Your task to perform on an android device: toggle show notifications on the lock screen Image 0: 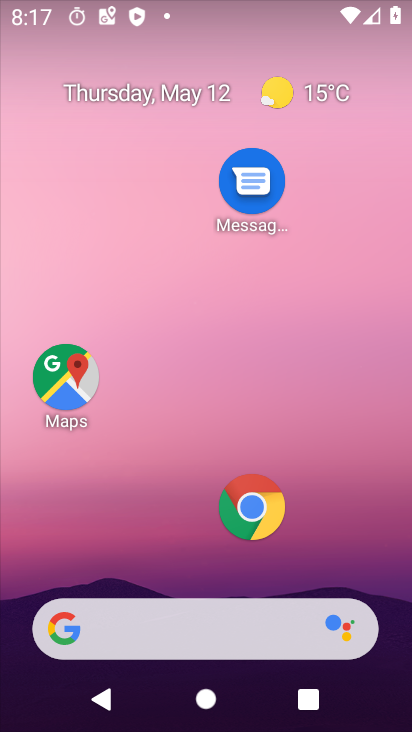
Step 0: drag from (327, 566) to (311, 162)
Your task to perform on an android device: toggle show notifications on the lock screen Image 1: 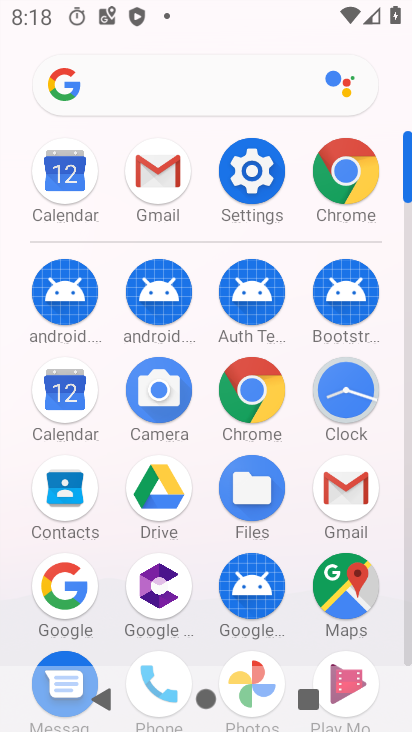
Step 1: click (248, 178)
Your task to perform on an android device: toggle show notifications on the lock screen Image 2: 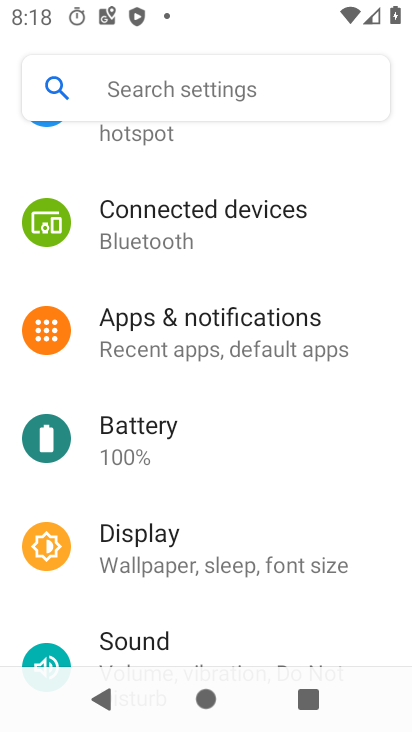
Step 2: click (211, 339)
Your task to perform on an android device: toggle show notifications on the lock screen Image 3: 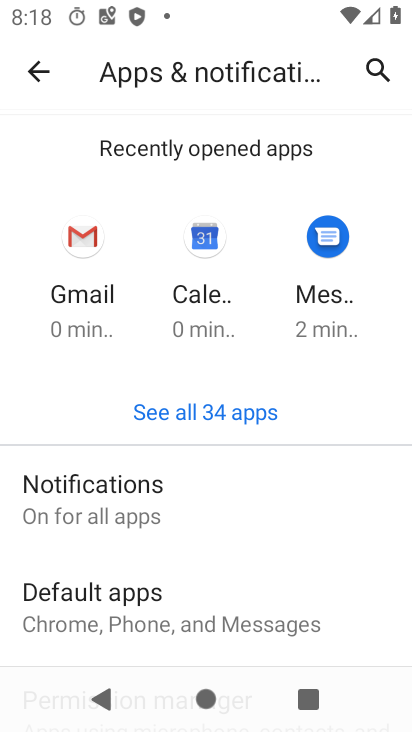
Step 3: click (144, 506)
Your task to perform on an android device: toggle show notifications on the lock screen Image 4: 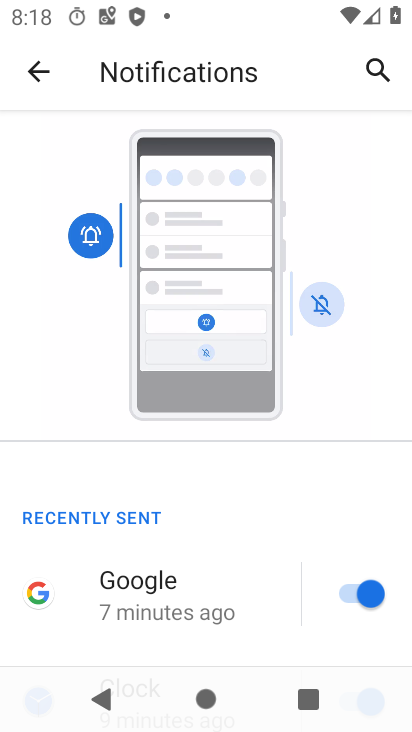
Step 4: drag from (156, 602) to (138, 274)
Your task to perform on an android device: toggle show notifications on the lock screen Image 5: 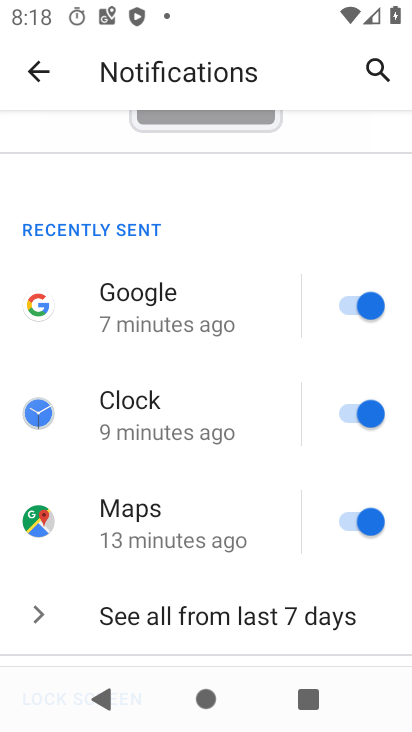
Step 5: drag from (146, 532) to (164, 245)
Your task to perform on an android device: toggle show notifications on the lock screen Image 6: 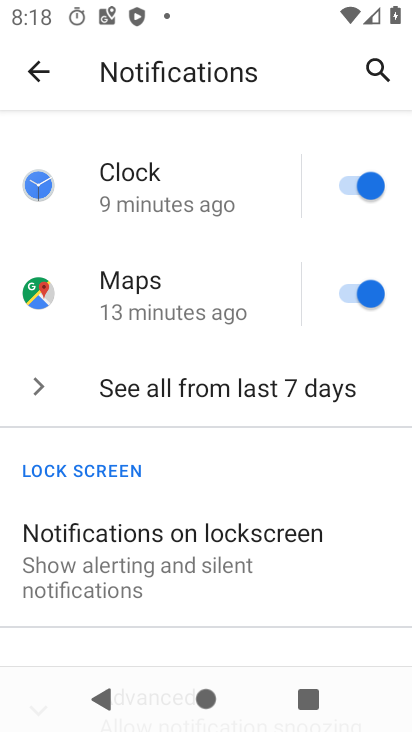
Step 6: click (140, 566)
Your task to perform on an android device: toggle show notifications on the lock screen Image 7: 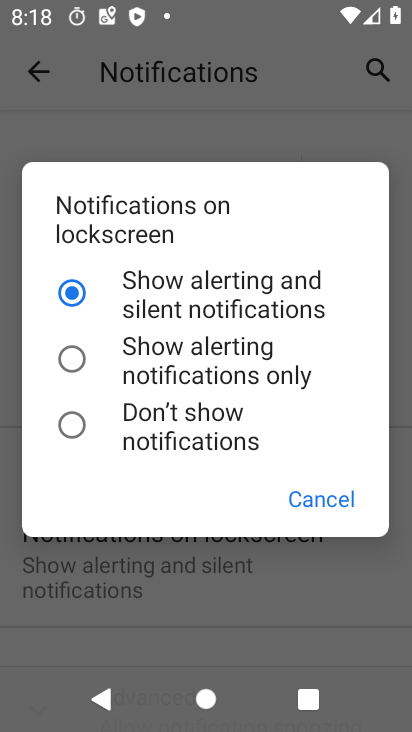
Step 7: click (183, 353)
Your task to perform on an android device: toggle show notifications on the lock screen Image 8: 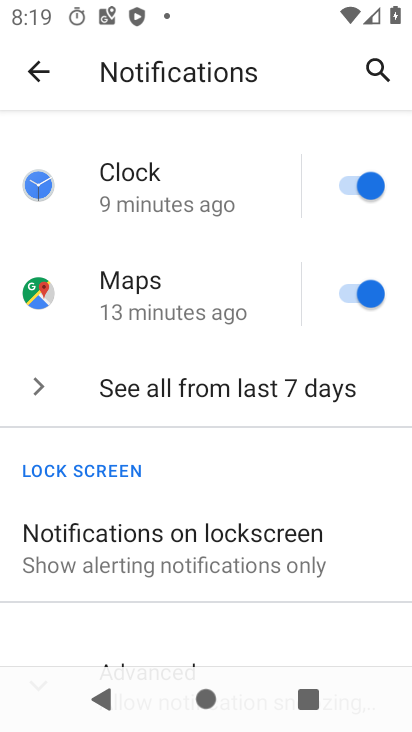
Step 8: task complete